Your task to perform on an android device: Open calendar and show me the fourth week of next month Image 0: 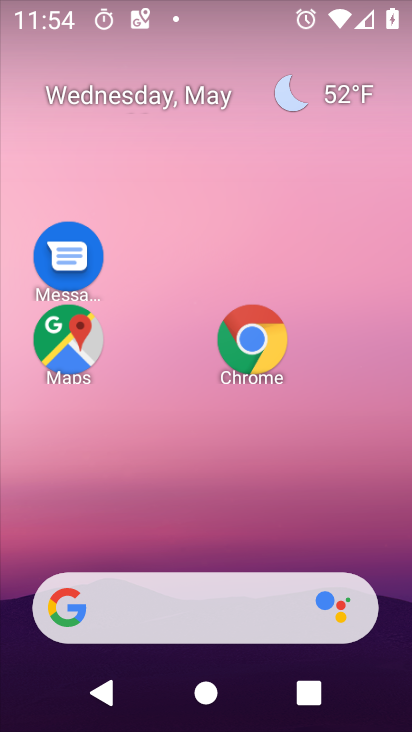
Step 0: drag from (194, 553) to (144, 60)
Your task to perform on an android device: Open calendar and show me the fourth week of next month Image 1: 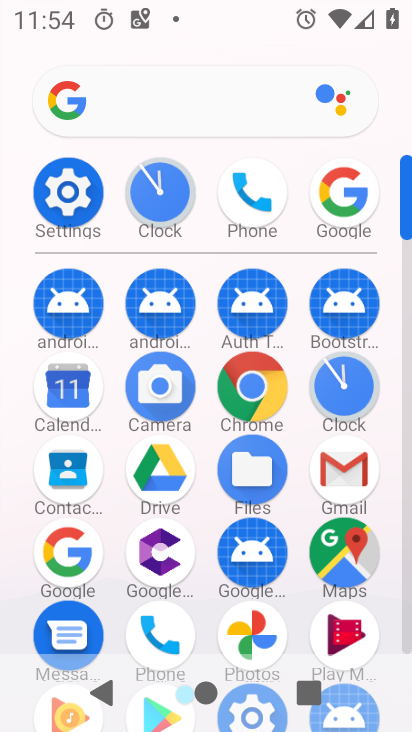
Step 1: click (70, 392)
Your task to perform on an android device: Open calendar and show me the fourth week of next month Image 2: 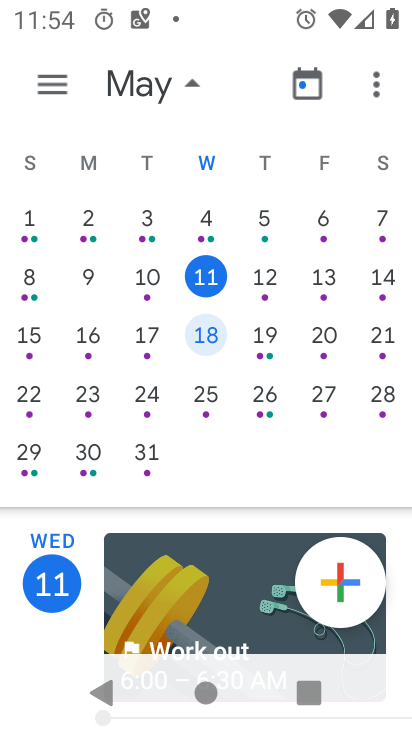
Step 2: drag from (347, 462) to (9, 430)
Your task to perform on an android device: Open calendar and show me the fourth week of next month Image 3: 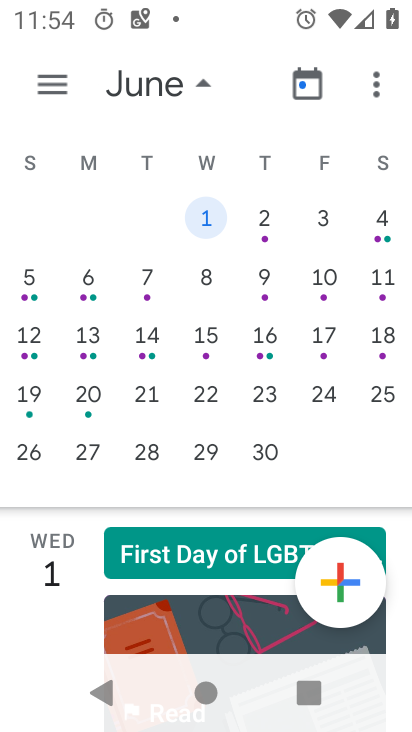
Step 3: click (208, 386)
Your task to perform on an android device: Open calendar and show me the fourth week of next month Image 4: 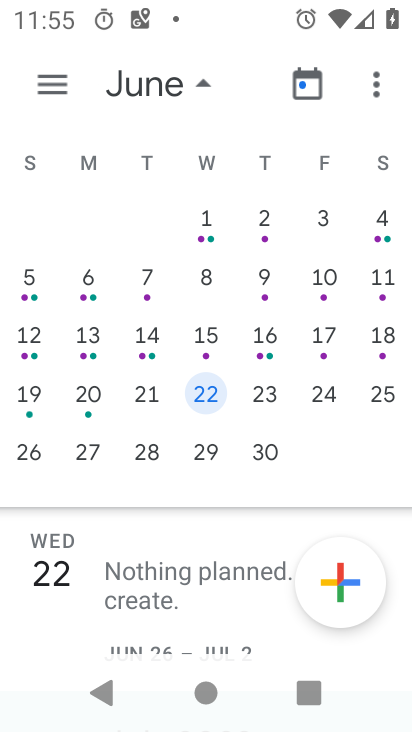
Step 4: task complete